Your task to perform on an android device: change notifications settings Image 0: 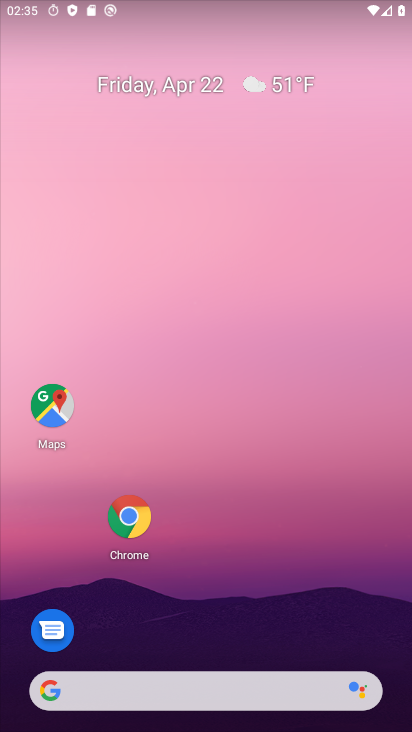
Step 0: drag from (383, 525) to (378, 128)
Your task to perform on an android device: change notifications settings Image 1: 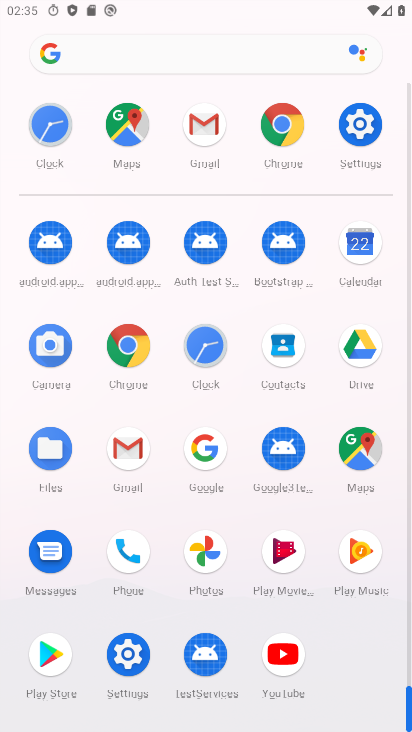
Step 1: click (358, 134)
Your task to perform on an android device: change notifications settings Image 2: 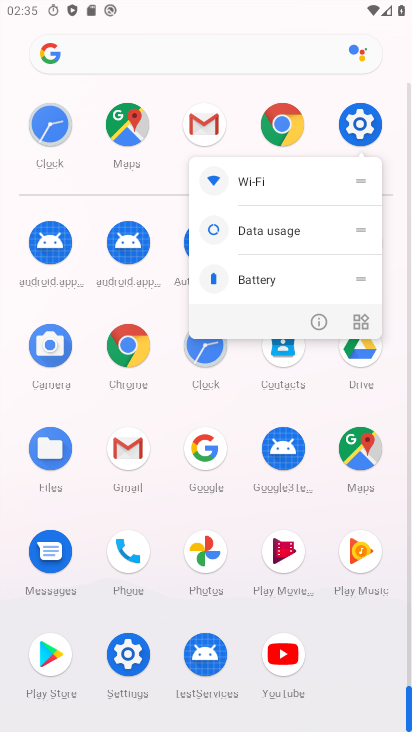
Step 2: click (366, 114)
Your task to perform on an android device: change notifications settings Image 3: 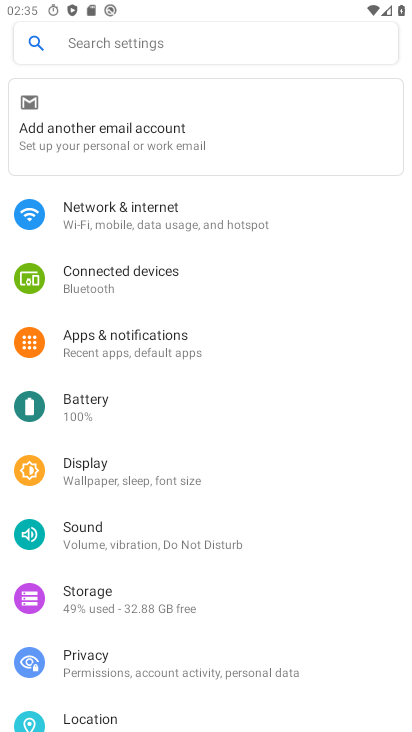
Step 3: click (82, 341)
Your task to perform on an android device: change notifications settings Image 4: 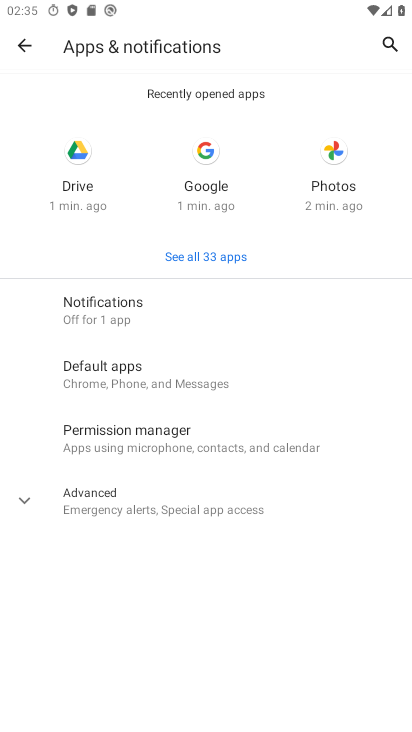
Step 4: click (80, 310)
Your task to perform on an android device: change notifications settings Image 5: 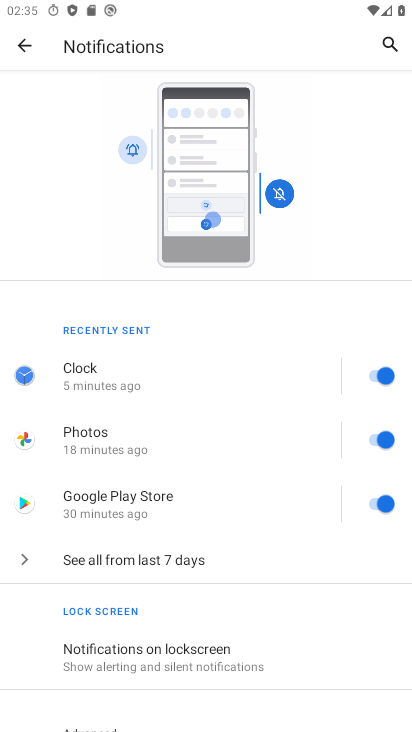
Step 5: drag from (257, 649) to (267, 504)
Your task to perform on an android device: change notifications settings Image 6: 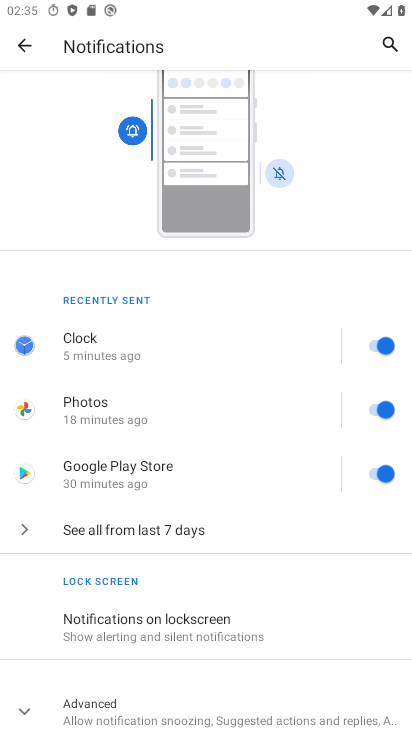
Step 6: click (379, 341)
Your task to perform on an android device: change notifications settings Image 7: 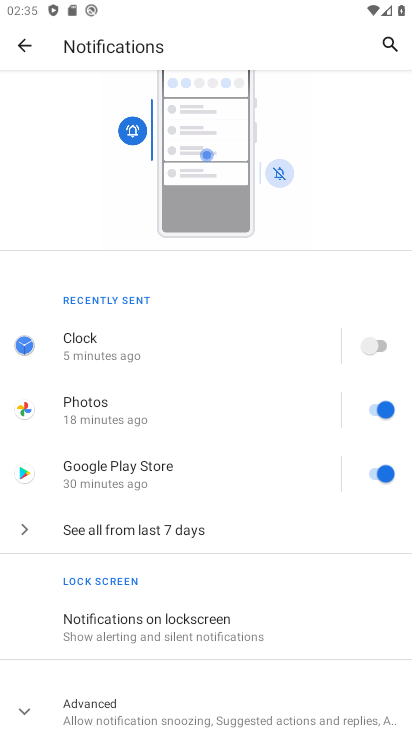
Step 7: click (376, 403)
Your task to perform on an android device: change notifications settings Image 8: 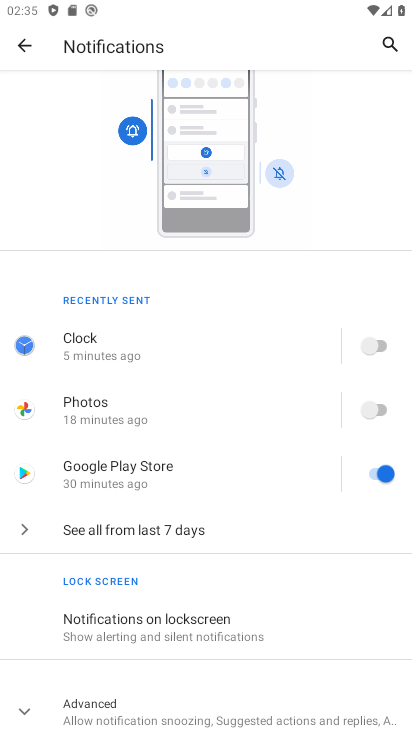
Step 8: click (369, 476)
Your task to perform on an android device: change notifications settings Image 9: 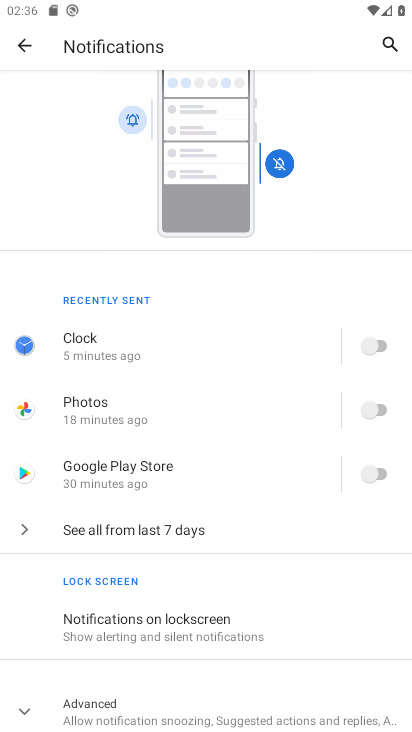
Step 9: task complete